Your task to perform on an android device: Open calendar and show me the fourth week of next month Image 0: 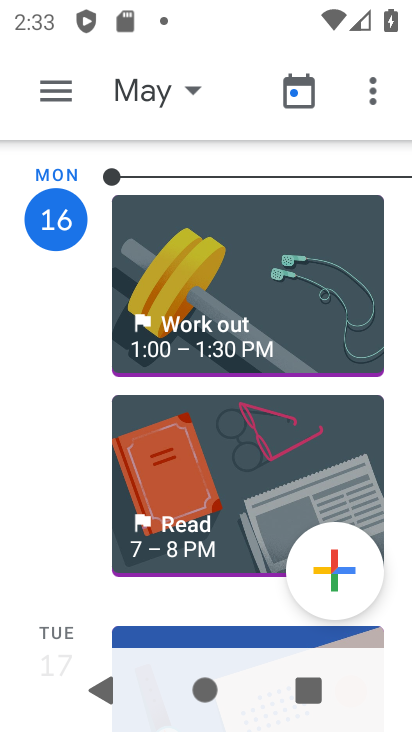
Step 0: click (57, 93)
Your task to perform on an android device: Open calendar and show me the fourth week of next month Image 1: 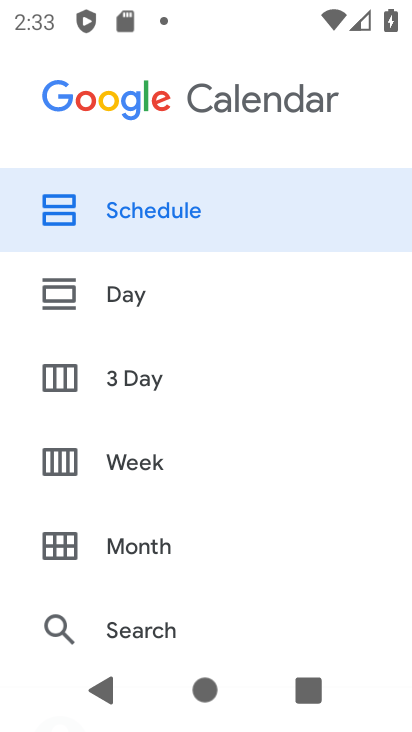
Step 1: click (178, 479)
Your task to perform on an android device: Open calendar and show me the fourth week of next month Image 2: 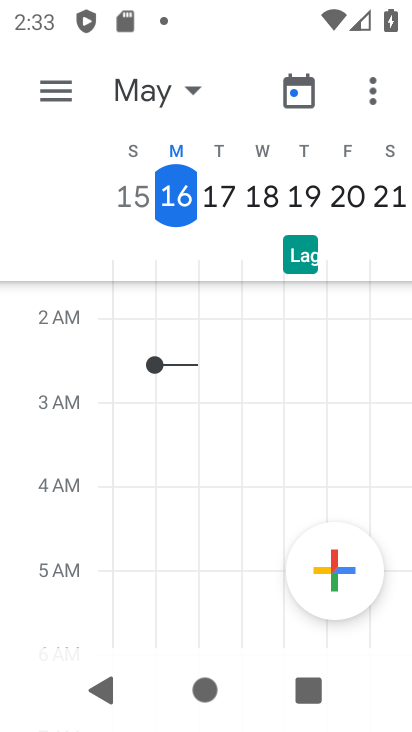
Step 2: click (141, 106)
Your task to perform on an android device: Open calendar and show me the fourth week of next month Image 3: 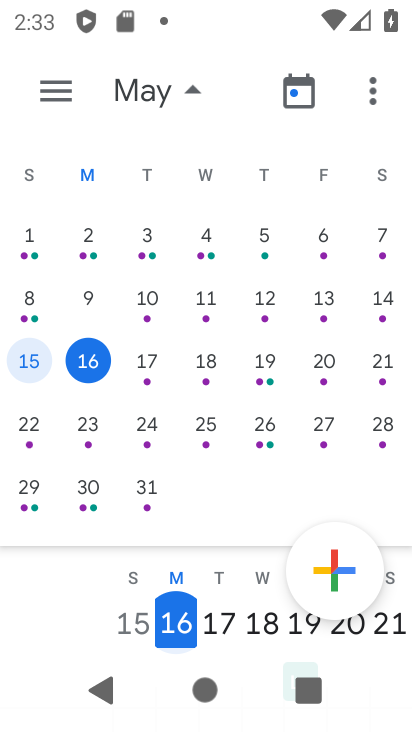
Step 3: drag from (390, 439) to (125, 403)
Your task to perform on an android device: Open calendar and show me the fourth week of next month Image 4: 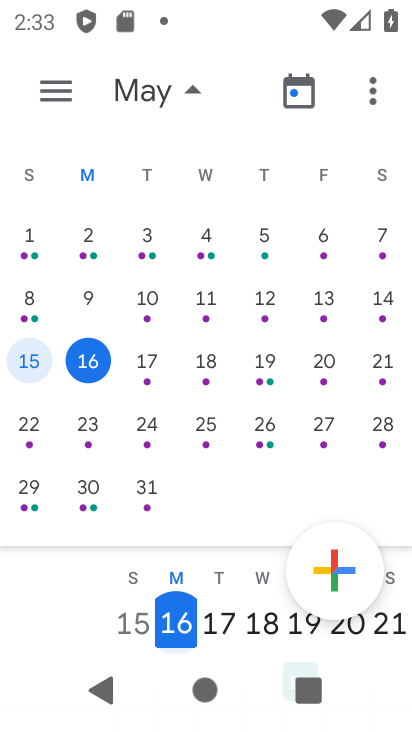
Step 4: drag from (342, 439) to (4, 376)
Your task to perform on an android device: Open calendar and show me the fourth week of next month Image 5: 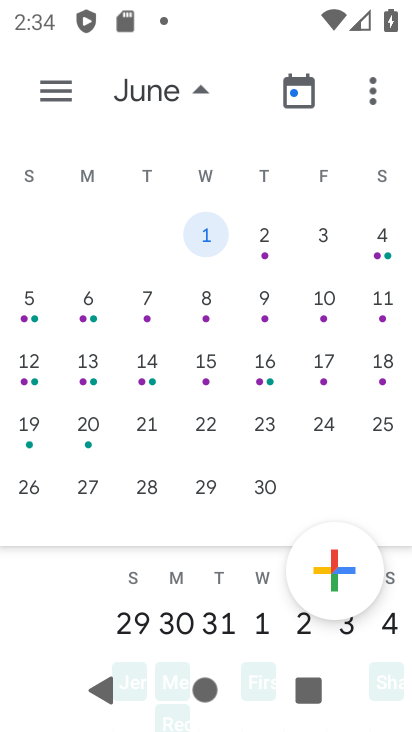
Step 5: click (43, 494)
Your task to perform on an android device: Open calendar and show me the fourth week of next month Image 6: 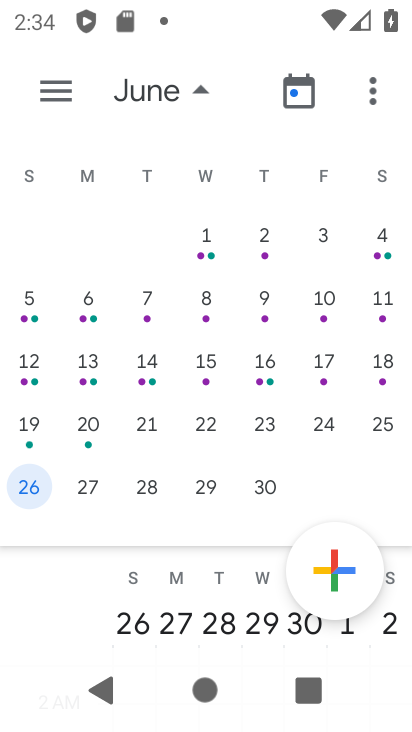
Step 6: click (188, 89)
Your task to perform on an android device: Open calendar and show me the fourth week of next month Image 7: 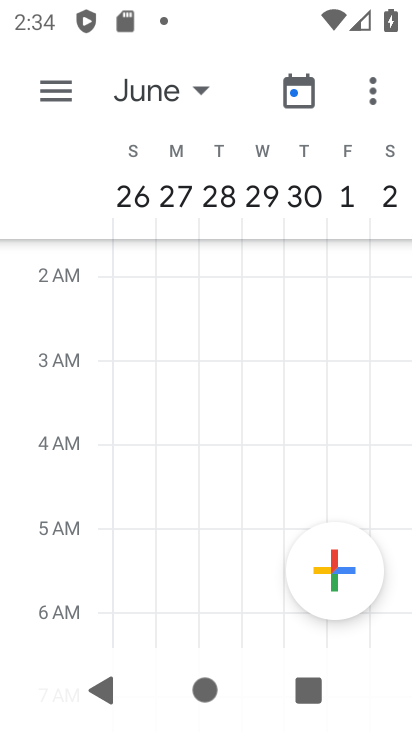
Step 7: task complete